Your task to perform on an android device: move an email to a new category in the gmail app Image 0: 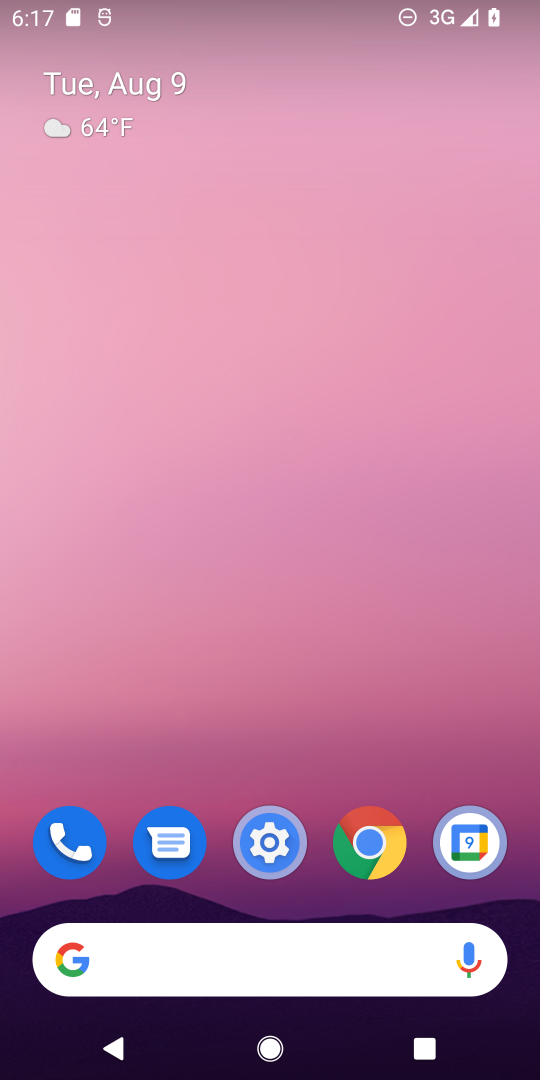
Step 0: drag from (231, 872) to (502, 10)
Your task to perform on an android device: move an email to a new category in the gmail app Image 1: 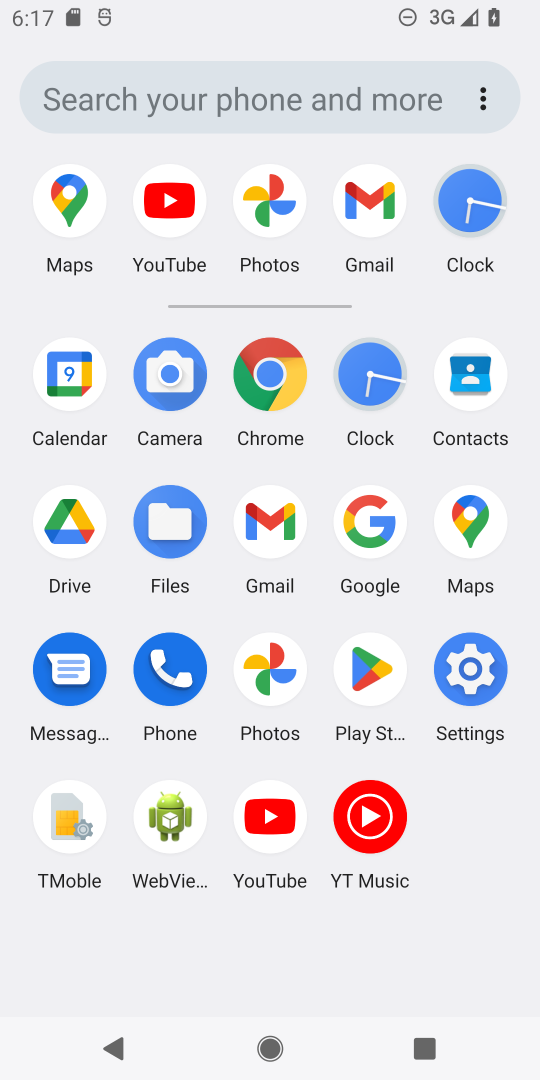
Step 1: click (282, 520)
Your task to perform on an android device: move an email to a new category in the gmail app Image 2: 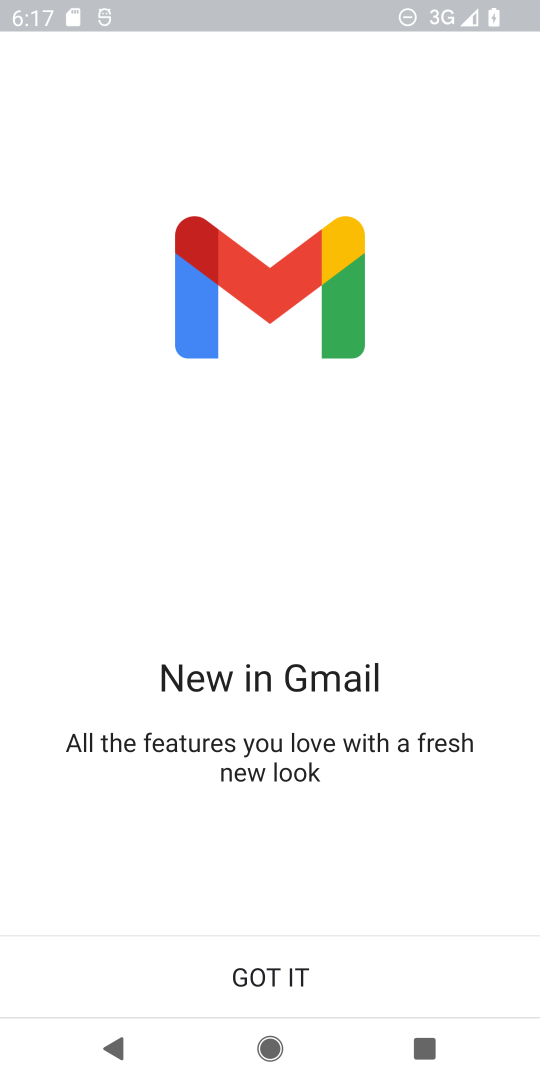
Step 2: click (282, 971)
Your task to perform on an android device: move an email to a new category in the gmail app Image 3: 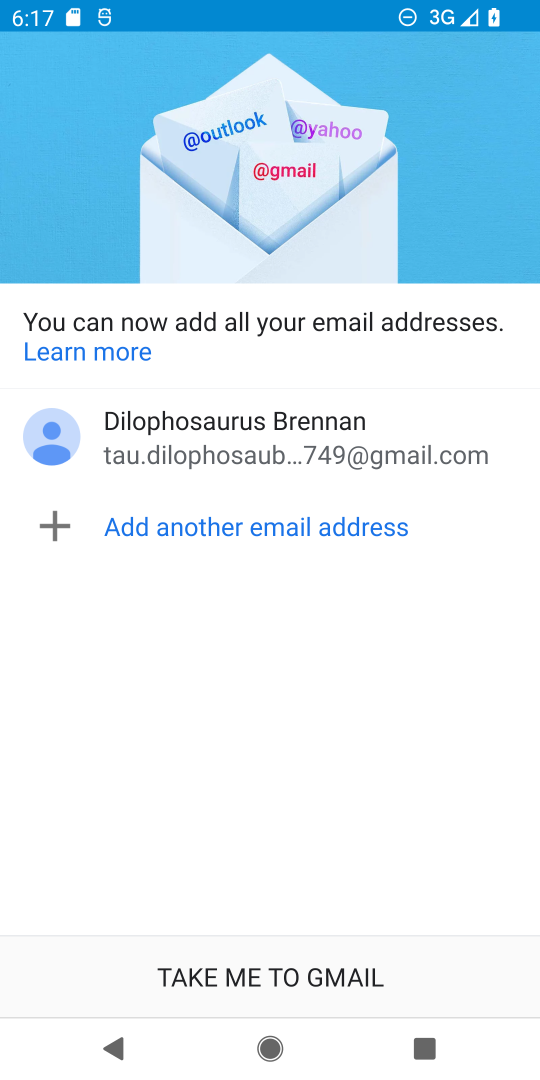
Step 3: click (282, 971)
Your task to perform on an android device: move an email to a new category in the gmail app Image 4: 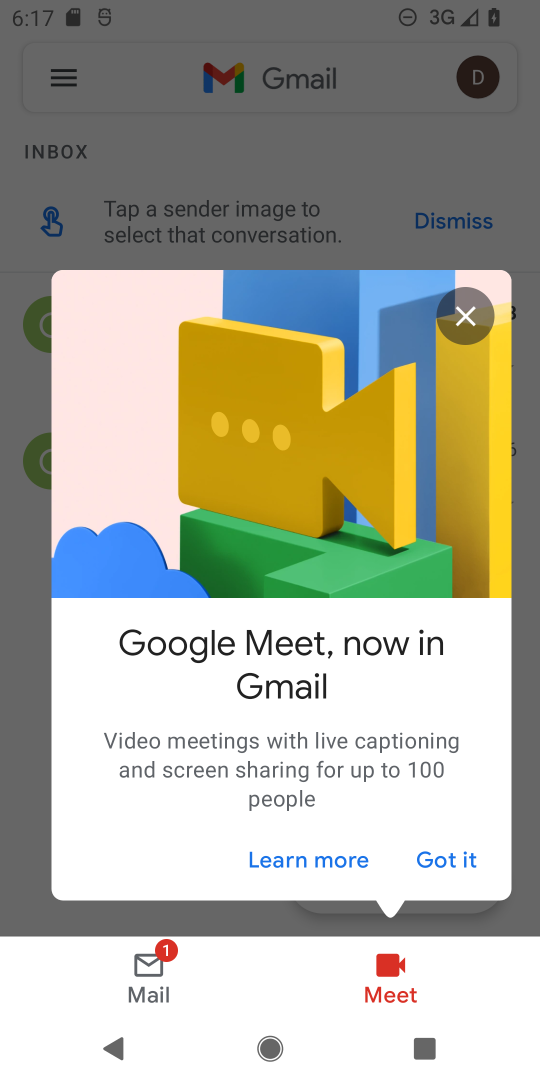
Step 4: click (472, 320)
Your task to perform on an android device: move an email to a new category in the gmail app Image 5: 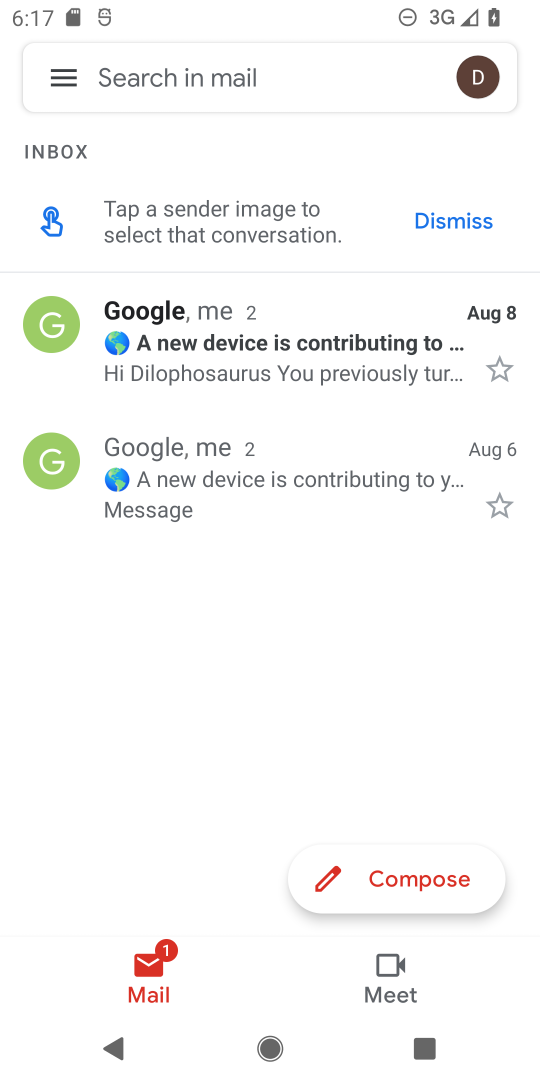
Step 5: click (199, 324)
Your task to perform on an android device: move an email to a new category in the gmail app Image 6: 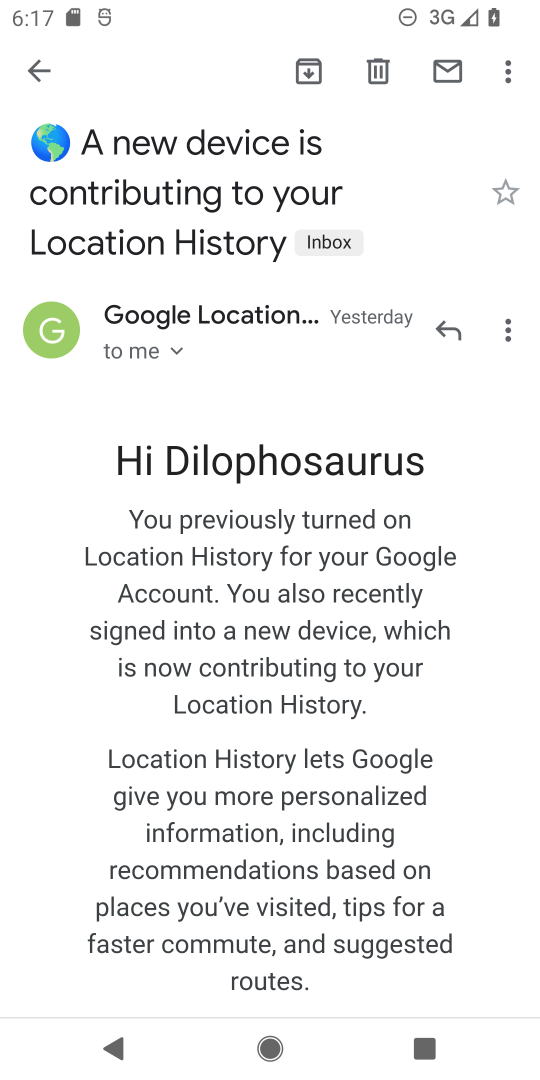
Step 6: click (508, 196)
Your task to perform on an android device: move an email to a new category in the gmail app Image 7: 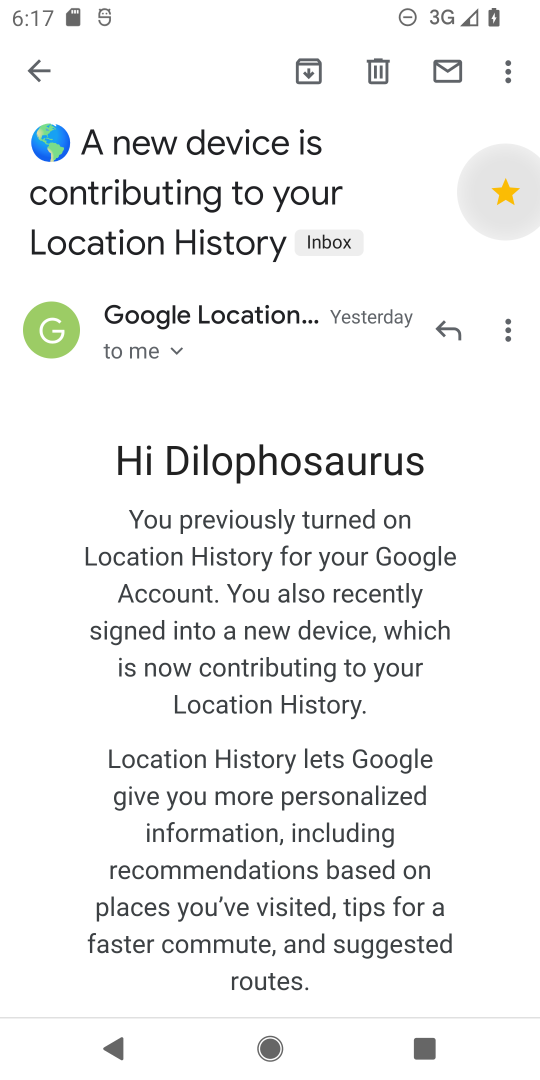
Step 7: task complete